Your task to perform on an android device: View the shopping cart on amazon.com. Search for "usb-c to usb-a" on amazon.com, select the first entry, add it to the cart, then select checkout. Image 0: 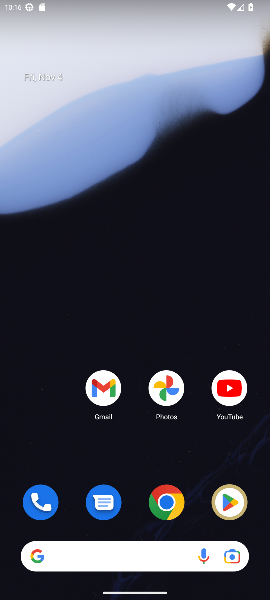
Step 0: click (154, 500)
Your task to perform on an android device: View the shopping cart on amazon.com. Search for "usb-c to usb-a" on amazon.com, select the first entry, add it to the cart, then select checkout. Image 1: 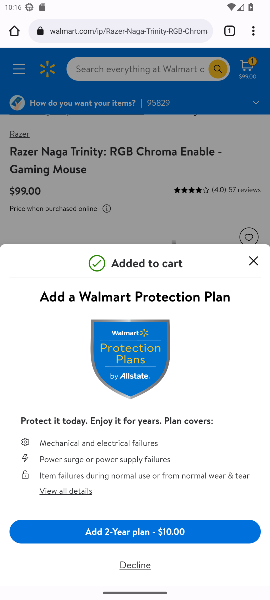
Step 1: click (162, 31)
Your task to perform on an android device: View the shopping cart on amazon.com. Search for "usb-c to usb-a" on amazon.com, select the first entry, add it to the cart, then select checkout. Image 2: 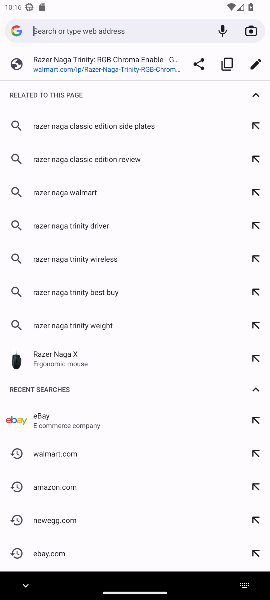
Step 2: type "amazon.com"
Your task to perform on an android device: View the shopping cart on amazon.com. Search for "usb-c to usb-a" on amazon.com, select the first entry, add it to the cart, then select checkout. Image 3: 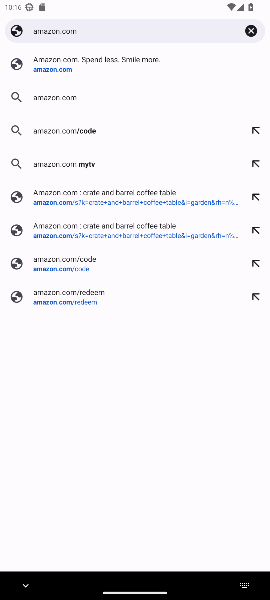
Step 3: click (59, 97)
Your task to perform on an android device: View the shopping cart on amazon.com. Search for "usb-c to usb-a" on amazon.com, select the first entry, add it to the cart, then select checkout. Image 4: 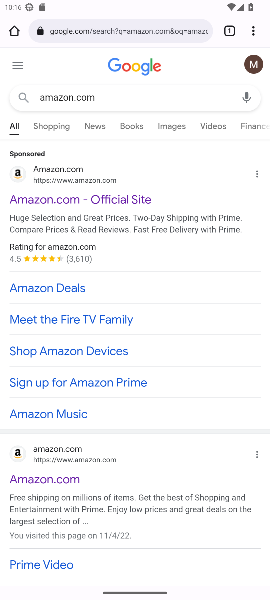
Step 4: click (80, 172)
Your task to perform on an android device: View the shopping cart on amazon.com. Search for "usb-c to usb-a" on amazon.com, select the first entry, add it to the cart, then select checkout. Image 5: 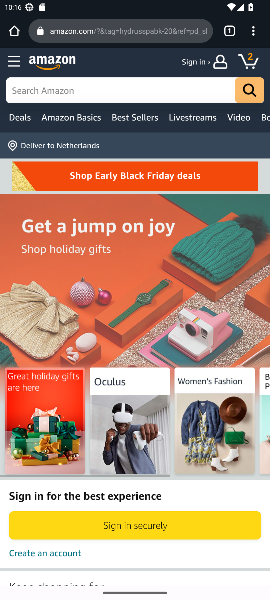
Step 5: click (252, 65)
Your task to perform on an android device: View the shopping cart on amazon.com. Search for "usb-c to usb-a" on amazon.com, select the first entry, add it to the cart, then select checkout. Image 6: 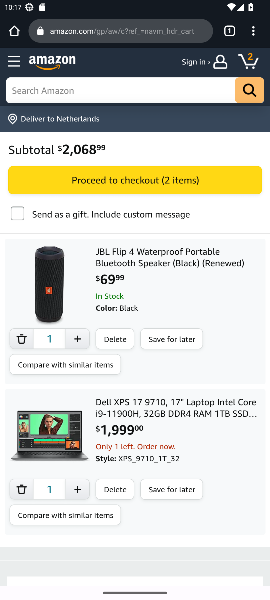
Step 6: click (166, 81)
Your task to perform on an android device: View the shopping cart on amazon.com. Search for "usb-c to usb-a" on amazon.com, select the first entry, add it to the cart, then select checkout. Image 7: 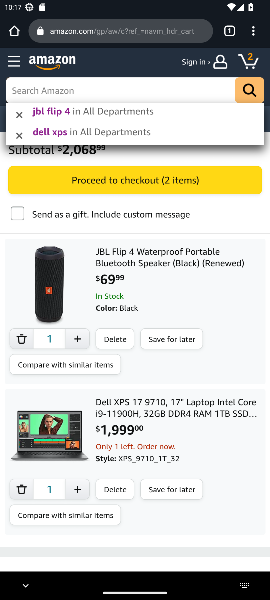
Step 7: click (128, 88)
Your task to perform on an android device: View the shopping cart on amazon.com. Search for "usb-c to usb-a" on amazon.com, select the first entry, add it to the cart, then select checkout. Image 8: 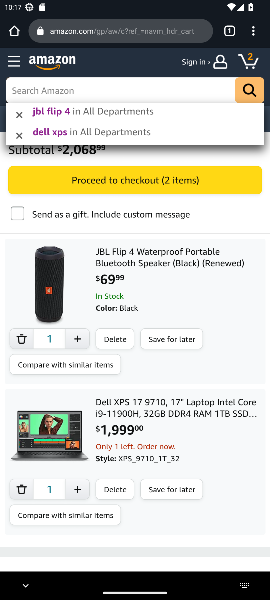
Step 8: type "usb-c to usb-a"
Your task to perform on an android device: View the shopping cart on amazon.com. Search for "usb-c to usb-a" on amazon.com, select the first entry, add it to the cart, then select checkout. Image 9: 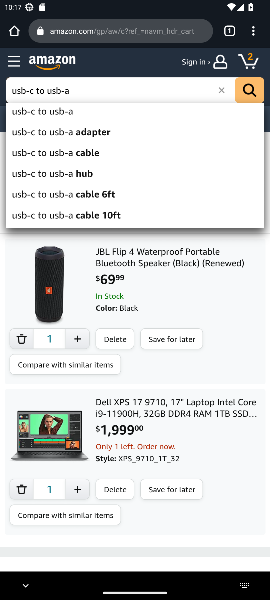
Step 9: click (45, 114)
Your task to perform on an android device: View the shopping cart on amazon.com. Search for "usb-c to usb-a" on amazon.com, select the first entry, add it to the cart, then select checkout. Image 10: 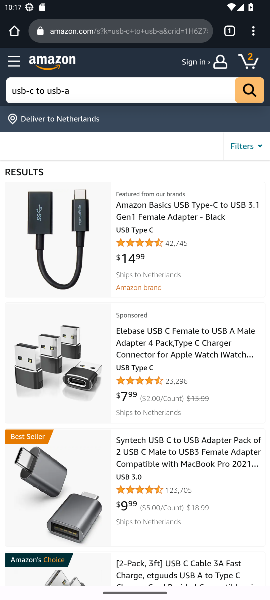
Step 10: click (36, 374)
Your task to perform on an android device: View the shopping cart on amazon.com. Search for "usb-c to usb-a" on amazon.com, select the first entry, add it to the cart, then select checkout. Image 11: 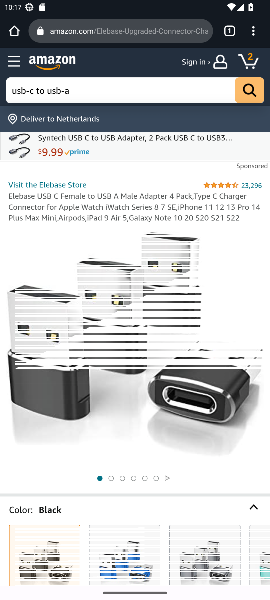
Step 11: drag from (192, 375) to (168, 125)
Your task to perform on an android device: View the shopping cart on amazon.com. Search for "usb-c to usb-a" on amazon.com, select the first entry, add it to the cart, then select checkout. Image 12: 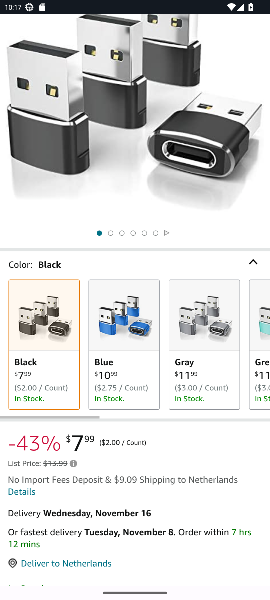
Step 12: drag from (201, 537) to (166, 285)
Your task to perform on an android device: View the shopping cart on amazon.com. Search for "usb-c to usb-a" on amazon.com, select the first entry, add it to the cart, then select checkout. Image 13: 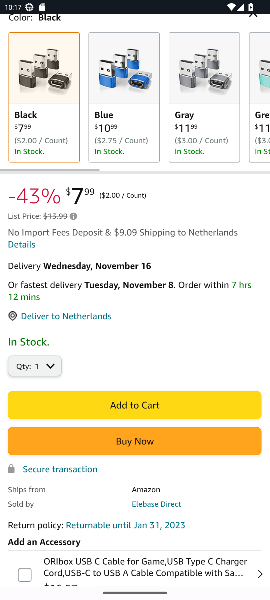
Step 13: click (137, 404)
Your task to perform on an android device: View the shopping cart on amazon.com. Search for "usb-c to usb-a" on amazon.com, select the first entry, add it to the cart, then select checkout. Image 14: 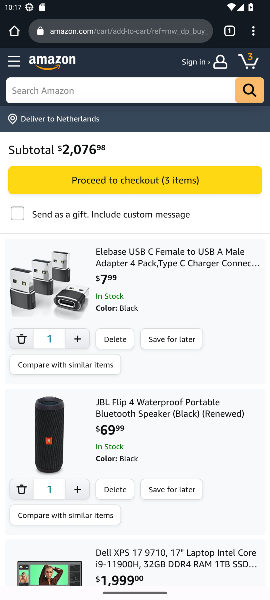
Step 14: click (135, 174)
Your task to perform on an android device: View the shopping cart on amazon.com. Search for "usb-c to usb-a" on amazon.com, select the first entry, add it to the cart, then select checkout. Image 15: 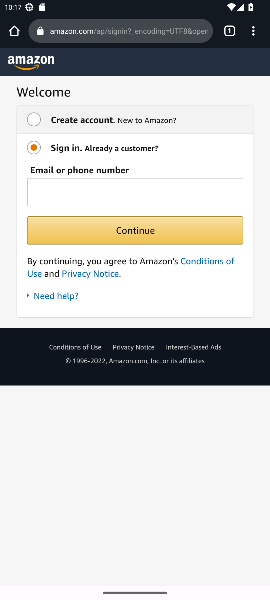
Step 15: task complete